Your task to perform on an android device: search for starred emails in the gmail app Image 0: 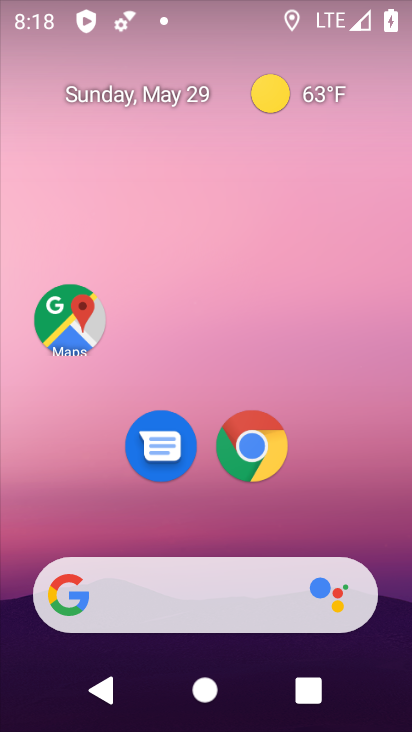
Step 0: drag from (217, 530) to (231, 158)
Your task to perform on an android device: search for starred emails in the gmail app Image 1: 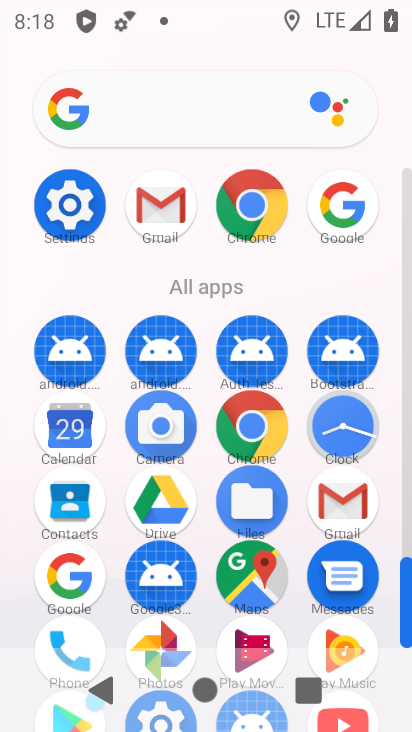
Step 1: click (169, 208)
Your task to perform on an android device: search for starred emails in the gmail app Image 2: 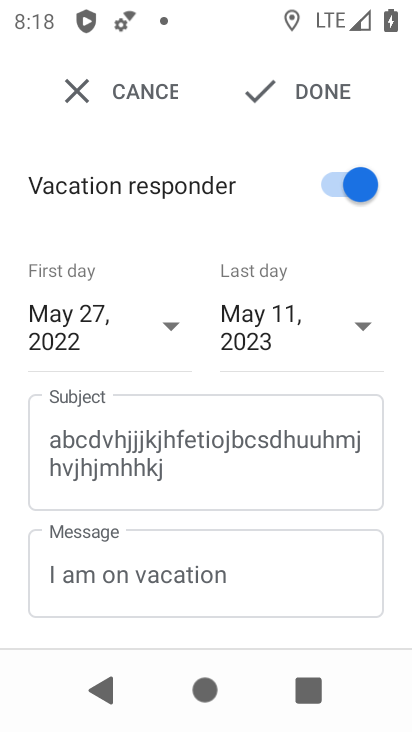
Step 2: click (81, 84)
Your task to perform on an android device: search for starred emails in the gmail app Image 3: 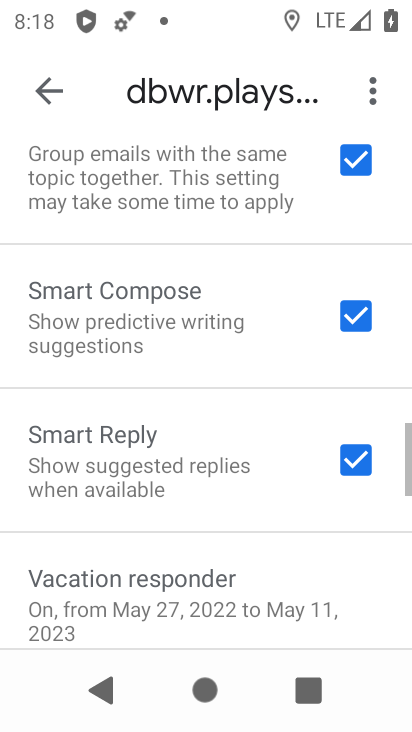
Step 3: click (58, 92)
Your task to perform on an android device: search for starred emails in the gmail app Image 4: 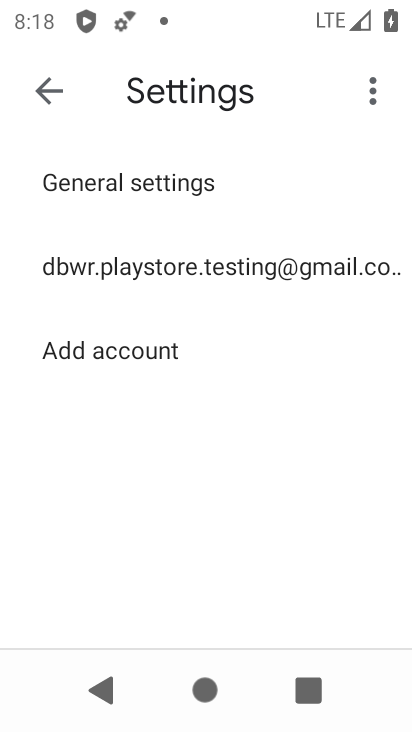
Step 4: click (57, 94)
Your task to perform on an android device: search for starred emails in the gmail app Image 5: 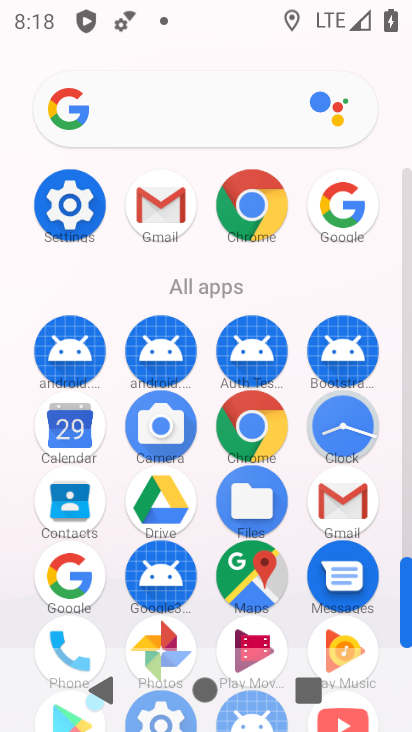
Step 5: click (133, 219)
Your task to perform on an android device: search for starred emails in the gmail app Image 6: 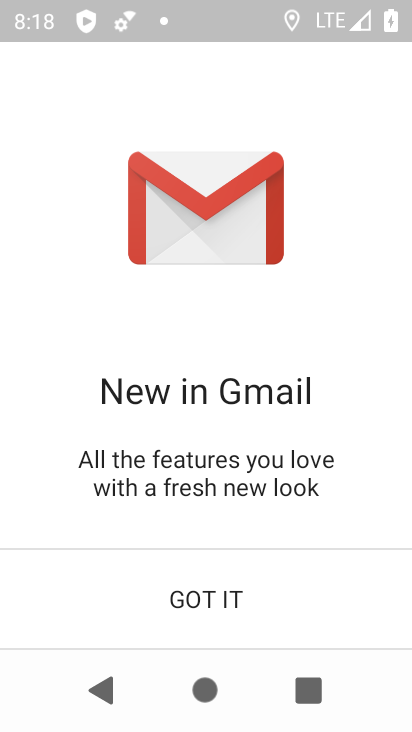
Step 6: click (213, 589)
Your task to perform on an android device: search for starred emails in the gmail app Image 7: 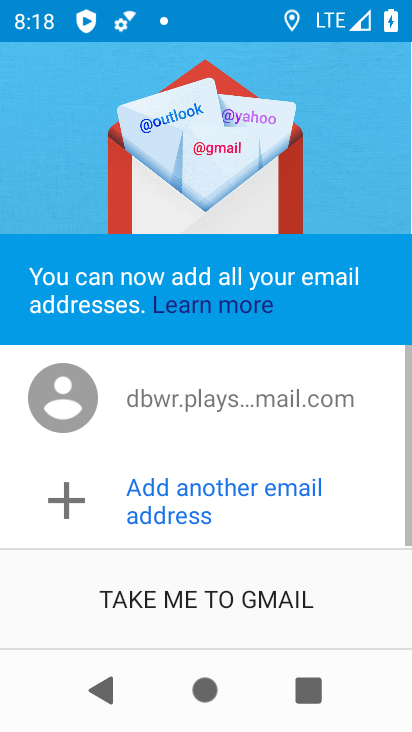
Step 7: click (220, 589)
Your task to perform on an android device: search for starred emails in the gmail app Image 8: 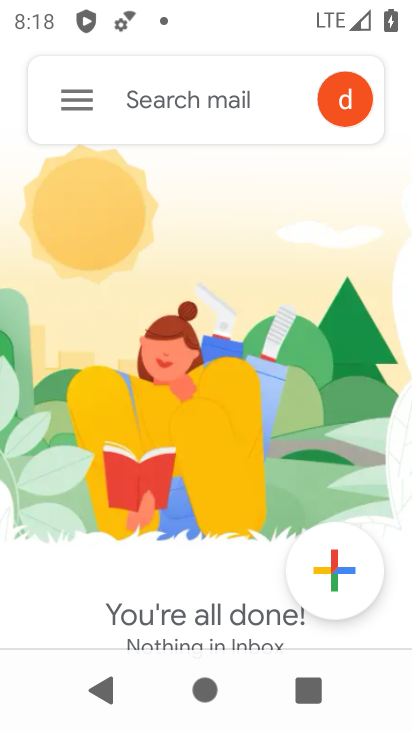
Step 8: click (71, 122)
Your task to perform on an android device: search for starred emails in the gmail app Image 9: 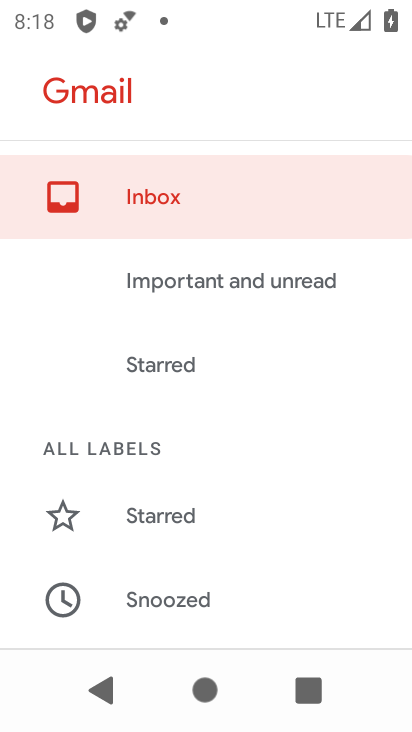
Step 9: click (183, 494)
Your task to perform on an android device: search for starred emails in the gmail app Image 10: 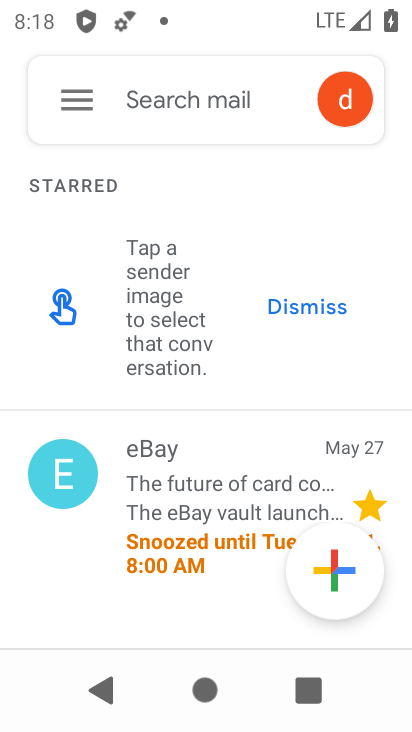
Step 10: task complete